Your task to perform on an android device: Search for seafood restaurants on Google Maps Image 0: 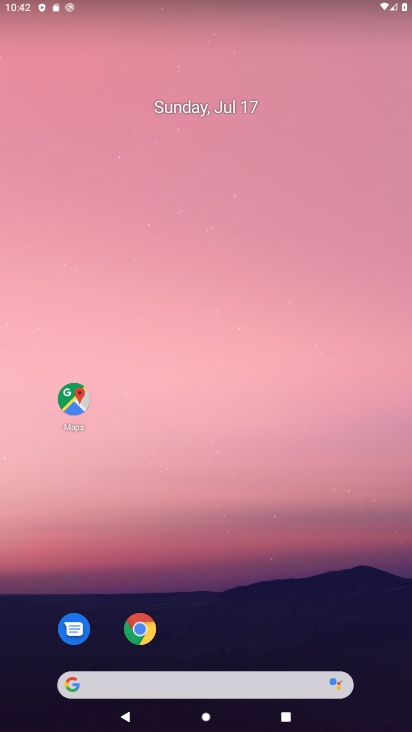
Step 0: click (71, 393)
Your task to perform on an android device: Search for seafood restaurants on Google Maps Image 1: 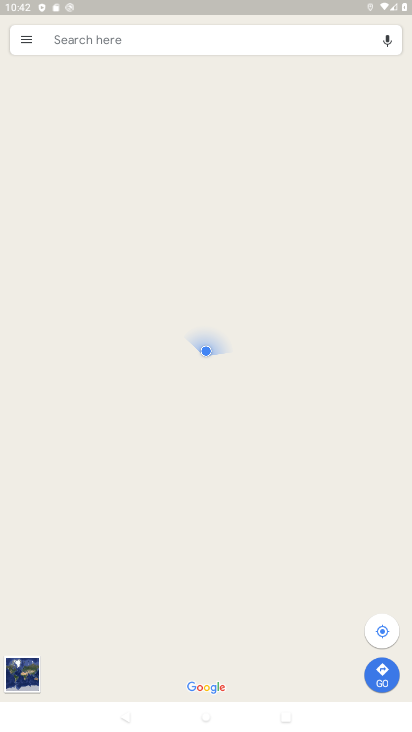
Step 1: click (212, 44)
Your task to perform on an android device: Search for seafood restaurants on Google Maps Image 2: 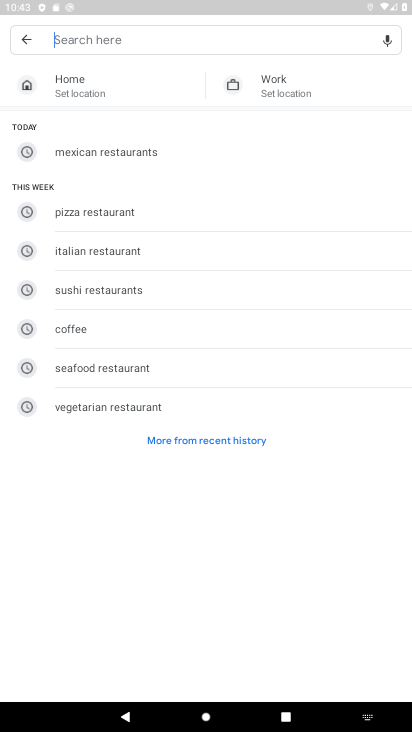
Step 2: type "seafood restaurants"
Your task to perform on an android device: Search for seafood restaurants on Google Maps Image 3: 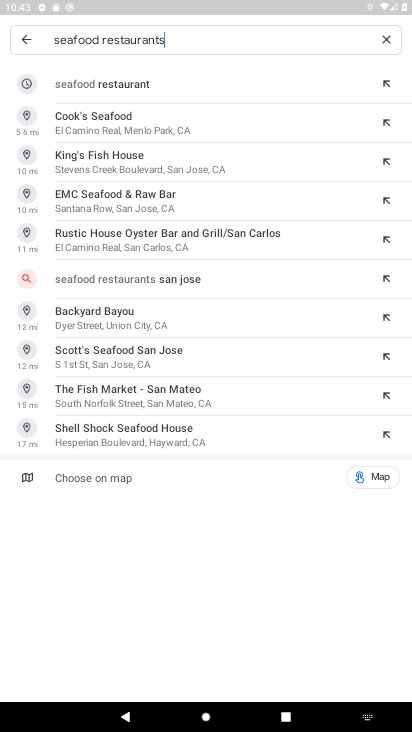
Step 3: click (53, 76)
Your task to perform on an android device: Search for seafood restaurants on Google Maps Image 4: 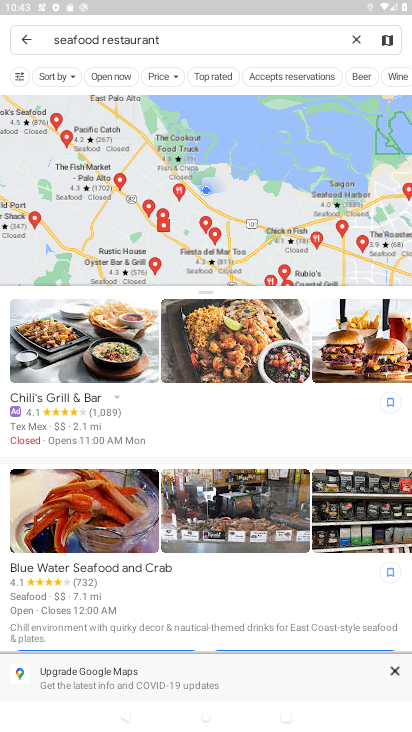
Step 4: task complete